Your task to perform on an android device: Open calendar and show me the second week of next month Image 0: 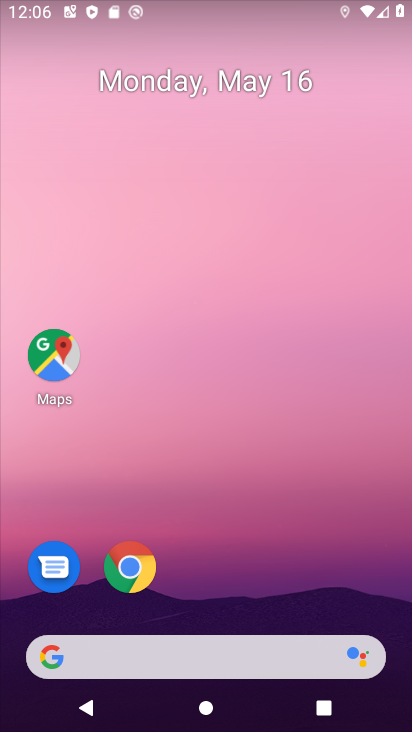
Step 0: drag from (251, 596) to (323, 107)
Your task to perform on an android device: Open calendar and show me the second week of next month Image 1: 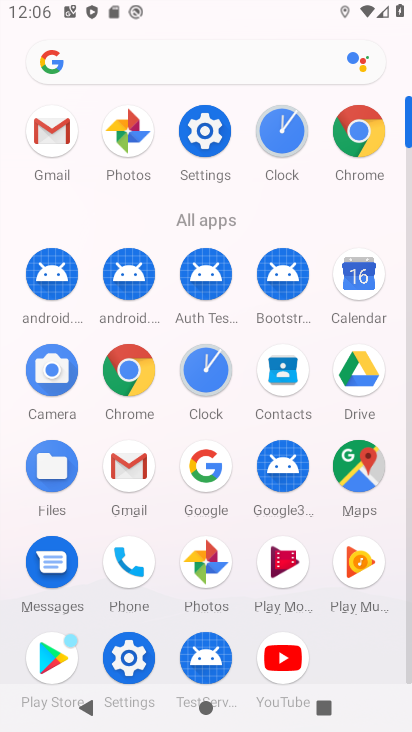
Step 1: click (361, 265)
Your task to perform on an android device: Open calendar and show me the second week of next month Image 2: 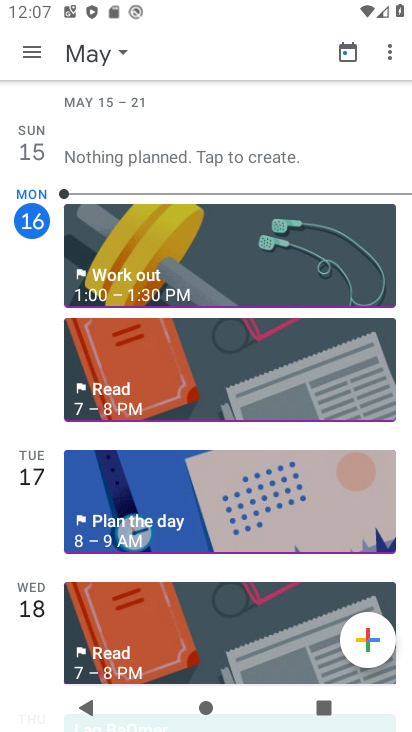
Step 2: click (73, 64)
Your task to perform on an android device: Open calendar and show me the second week of next month Image 3: 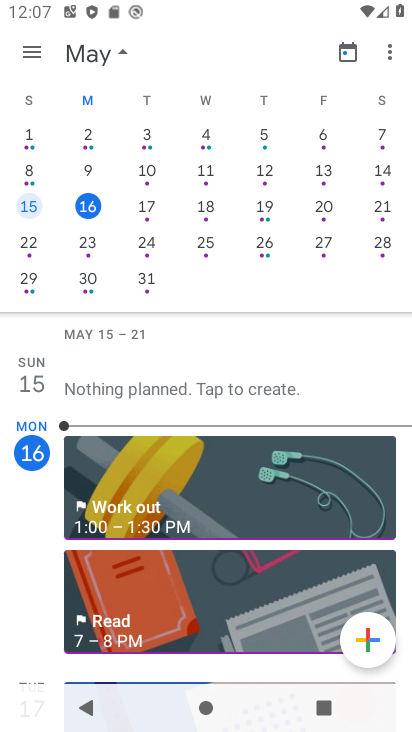
Step 3: drag from (390, 225) to (43, 215)
Your task to perform on an android device: Open calendar and show me the second week of next month Image 4: 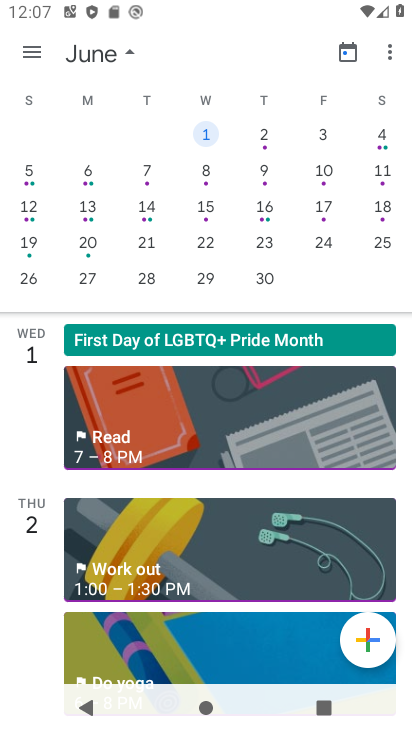
Step 4: click (28, 204)
Your task to perform on an android device: Open calendar and show me the second week of next month Image 5: 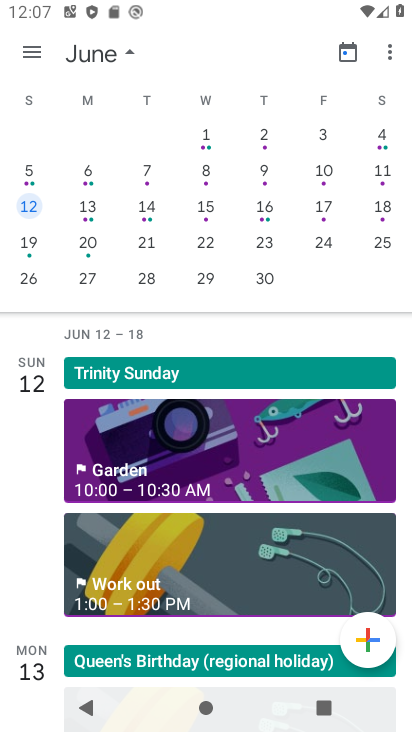
Step 5: task complete